Your task to perform on an android device: change the clock display to analog Image 0: 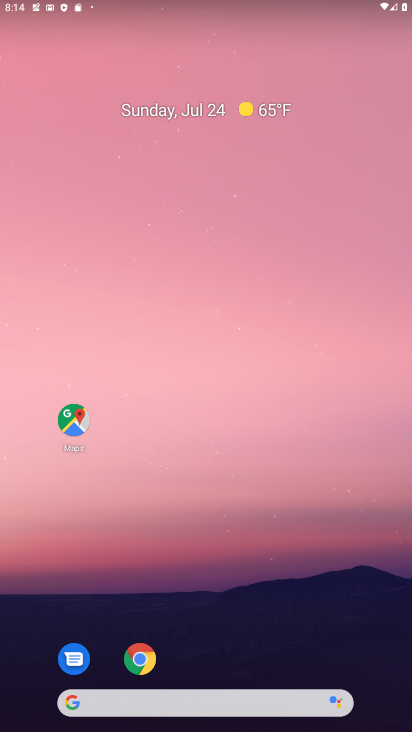
Step 0: drag from (333, 678) to (310, 1)
Your task to perform on an android device: change the clock display to analog Image 1: 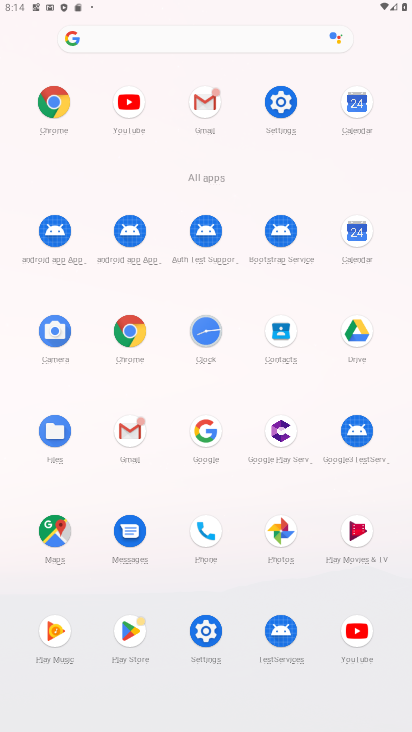
Step 1: click (211, 338)
Your task to perform on an android device: change the clock display to analog Image 2: 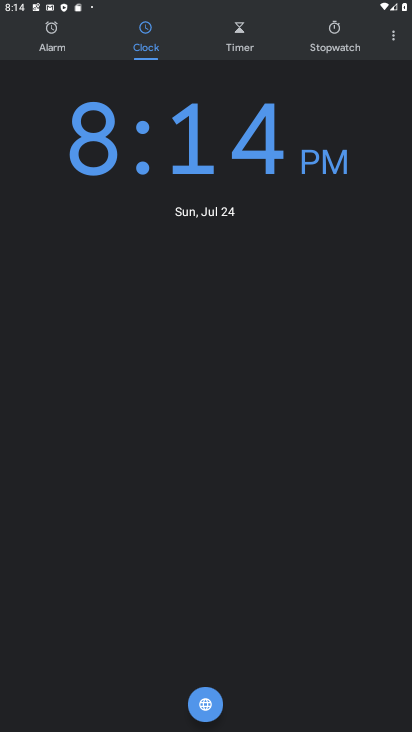
Step 2: click (392, 38)
Your task to perform on an android device: change the clock display to analog Image 3: 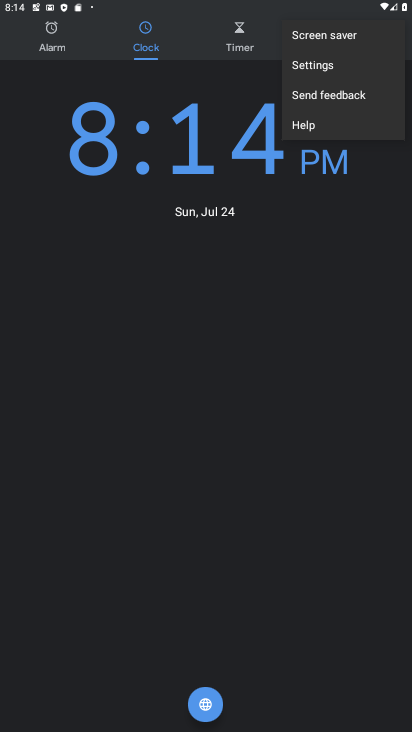
Step 3: click (321, 61)
Your task to perform on an android device: change the clock display to analog Image 4: 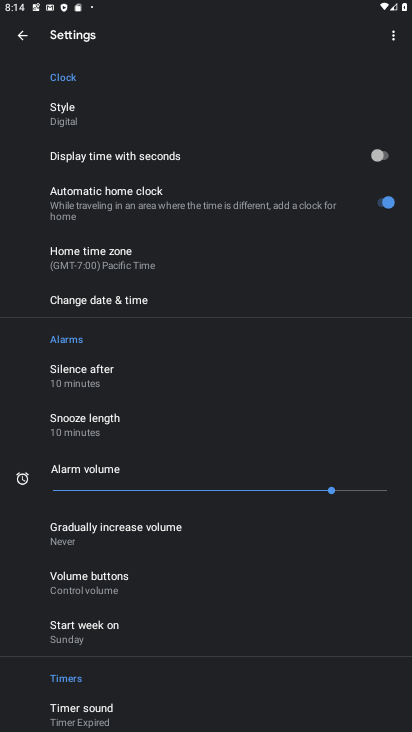
Step 4: click (76, 122)
Your task to perform on an android device: change the clock display to analog Image 5: 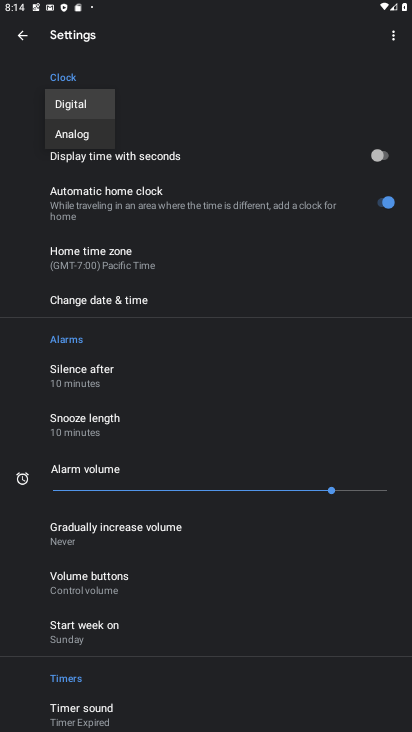
Step 5: click (77, 147)
Your task to perform on an android device: change the clock display to analog Image 6: 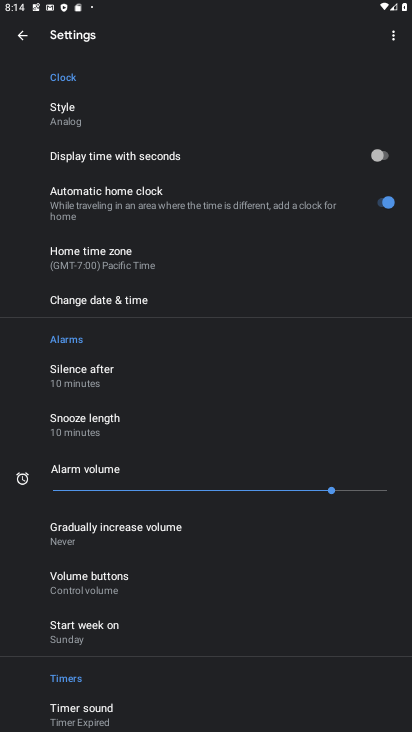
Step 6: task complete